Your task to perform on an android device: all mails in gmail Image 0: 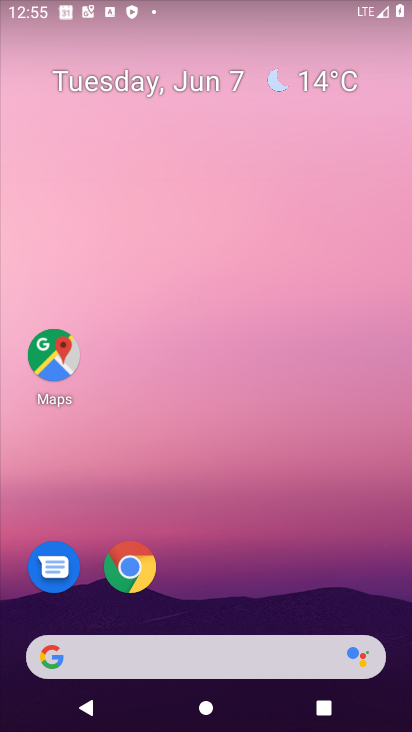
Step 0: drag from (244, 636) to (316, 52)
Your task to perform on an android device: all mails in gmail Image 1: 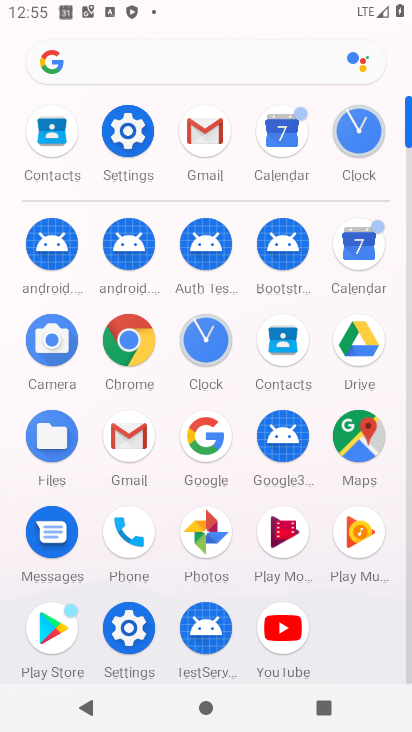
Step 1: click (137, 437)
Your task to perform on an android device: all mails in gmail Image 2: 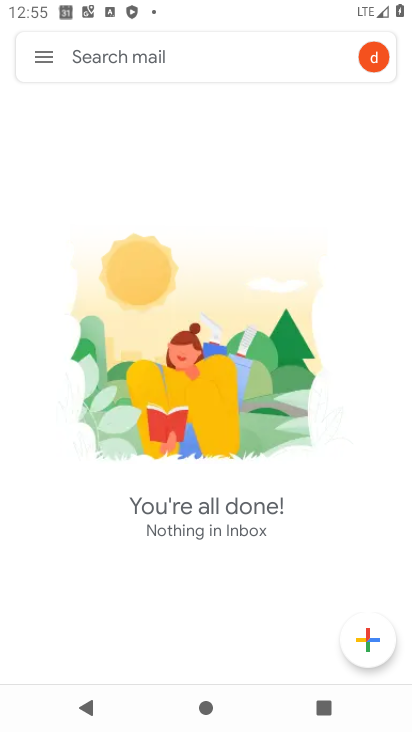
Step 2: click (29, 59)
Your task to perform on an android device: all mails in gmail Image 3: 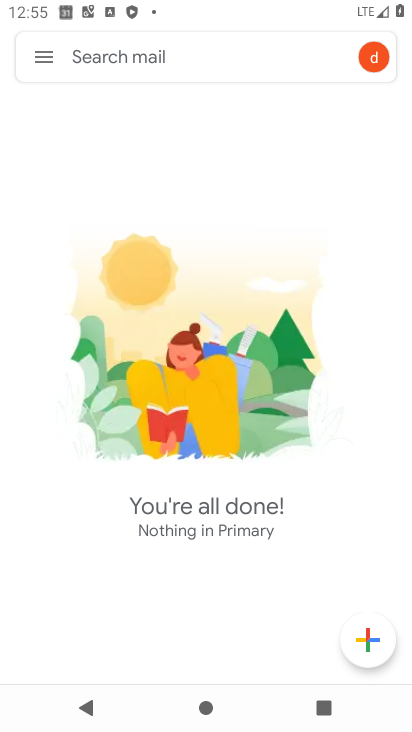
Step 3: click (44, 59)
Your task to perform on an android device: all mails in gmail Image 4: 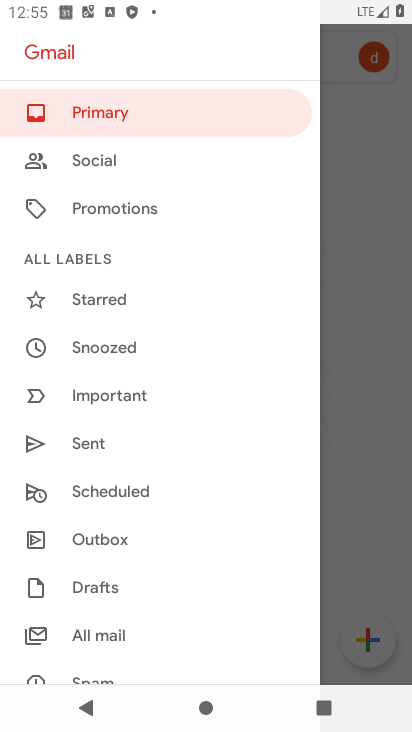
Step 4: click (130, 620)
Your task to perform on an android device: all mails in gmail Image 5: 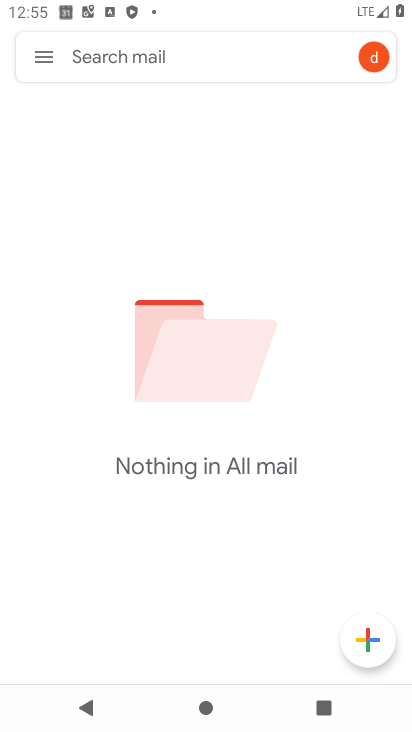
Step 5: task complete